Your task to perform on an android device: Open Google Image 0: 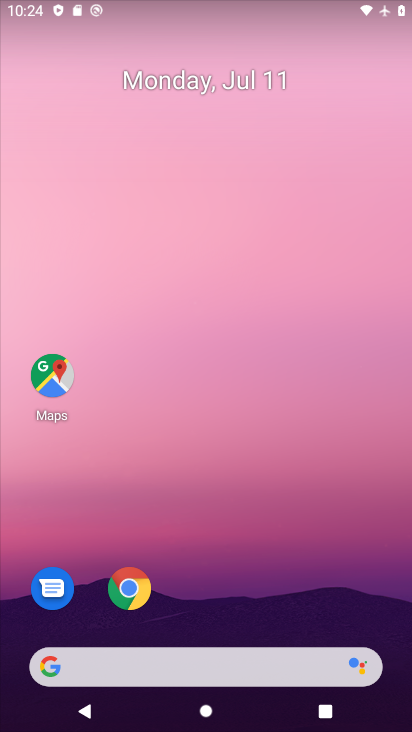
Step 0: drag from (266, 361) to (351, 50)
Your task to perform on an android device: Open Google Image 1: 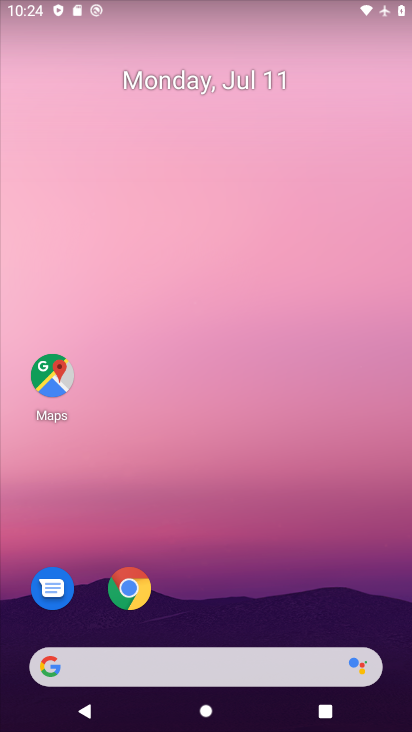
Step 1: drag from (185, 664) to (334, 47)
Your task to perform on an android device: Open Google Image 2: 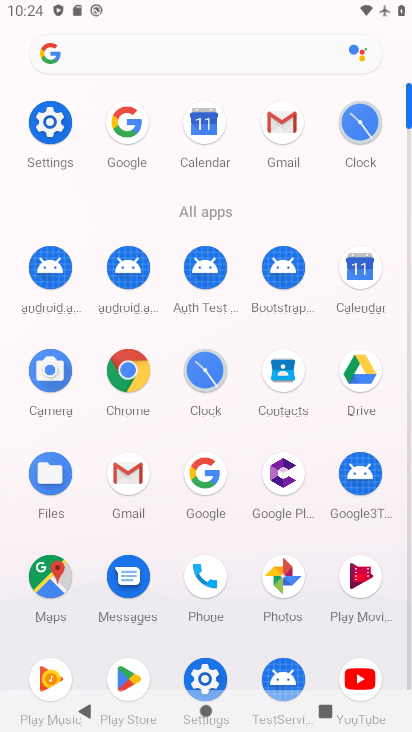
Step 2: click (127, 122)
Your task to perform on an android device: Open Google Image 3: 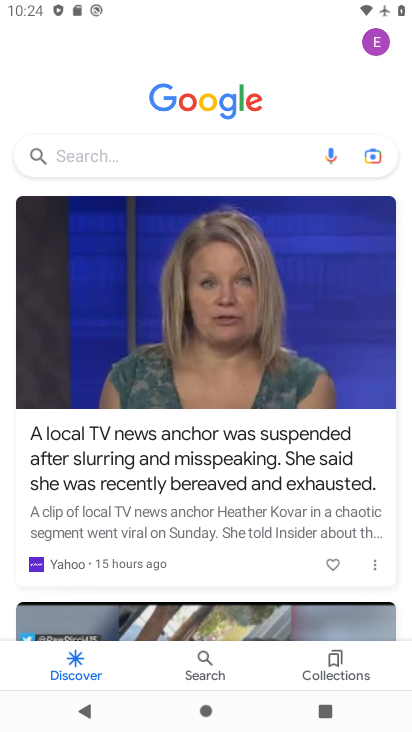
Step 3: task complete